Your task to perform on an android device: Open internet settings Image 0: 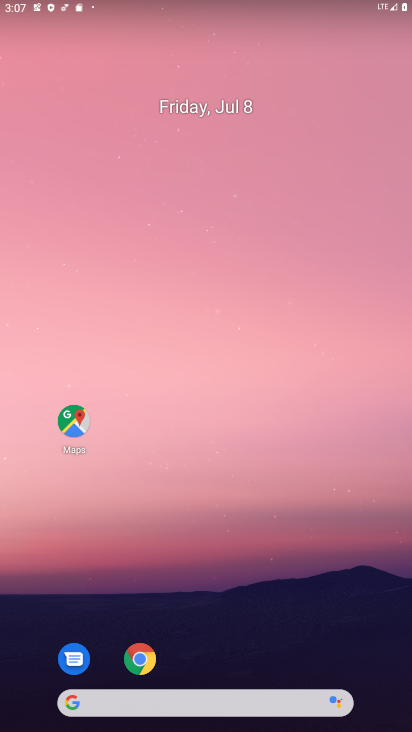
Step 0: drag from (198, 661) to (229, 178)
Your task to perform on an android device: Open internet settings Image 1: 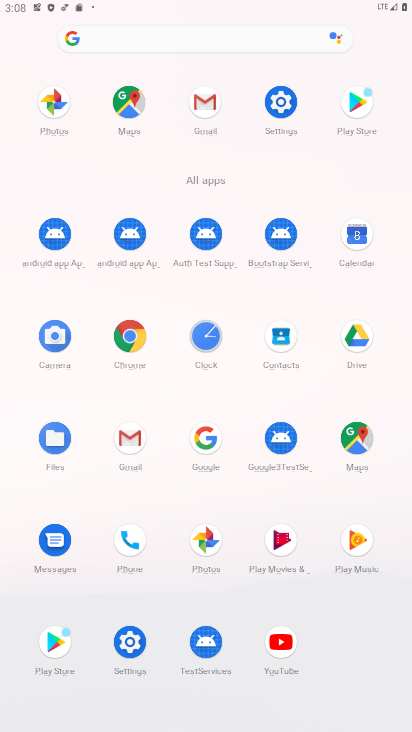
Step 1: click (269, 114)
Your task to perform on an android device: Open internet settings Image 2: 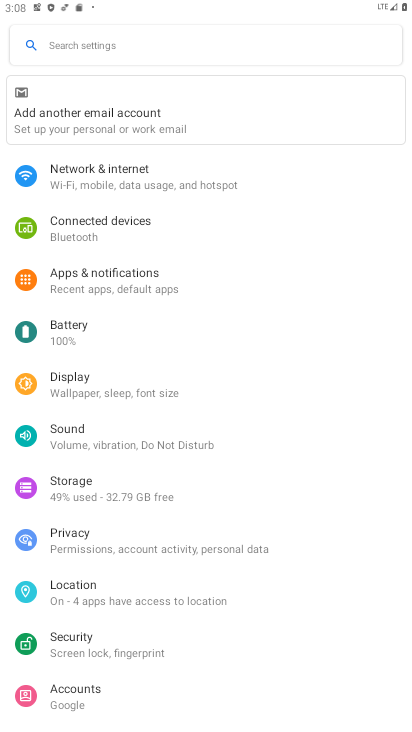
Step 2: click (210, 175)
Your task to perform on an android device: Open internet settings Image 3: 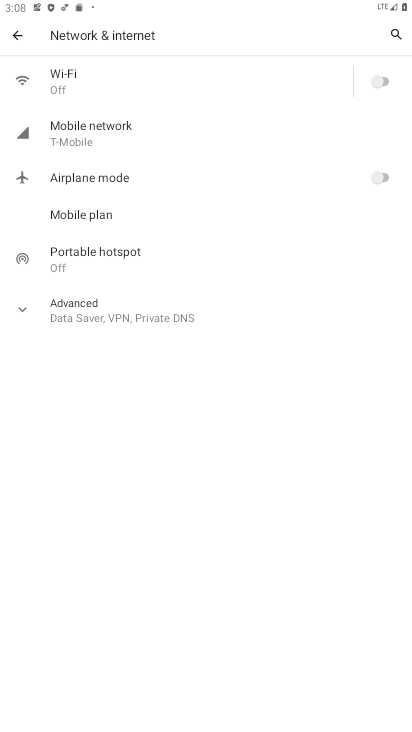
Step 3: task complete